Your task to perform on an android device: open app "Fetch Rewards" Image 0: 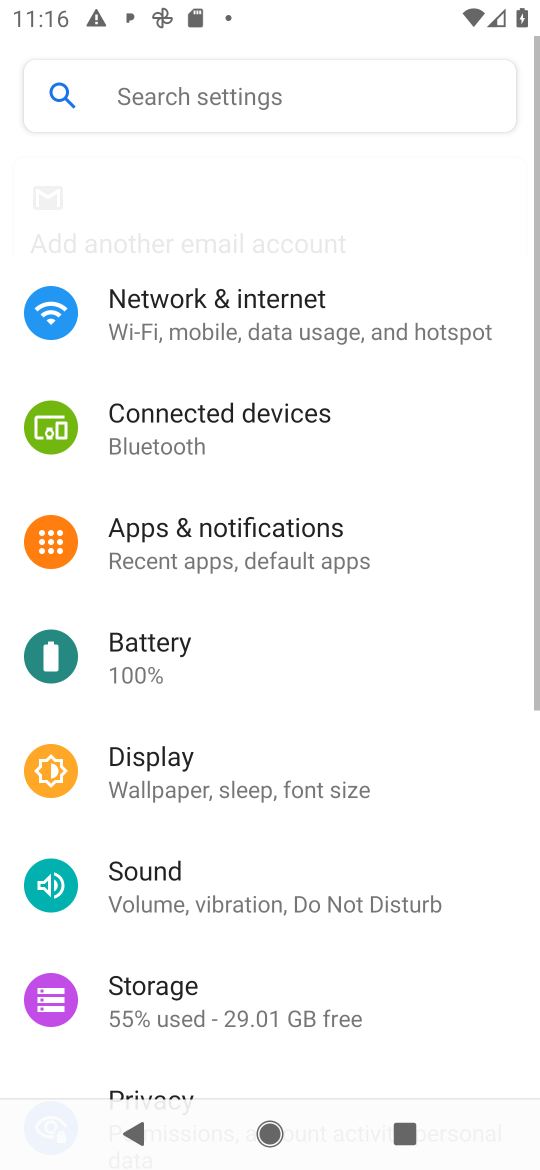
Step 0: press home button
Your task to perform on an android device: open app "Fetch Rewards" Image 1: 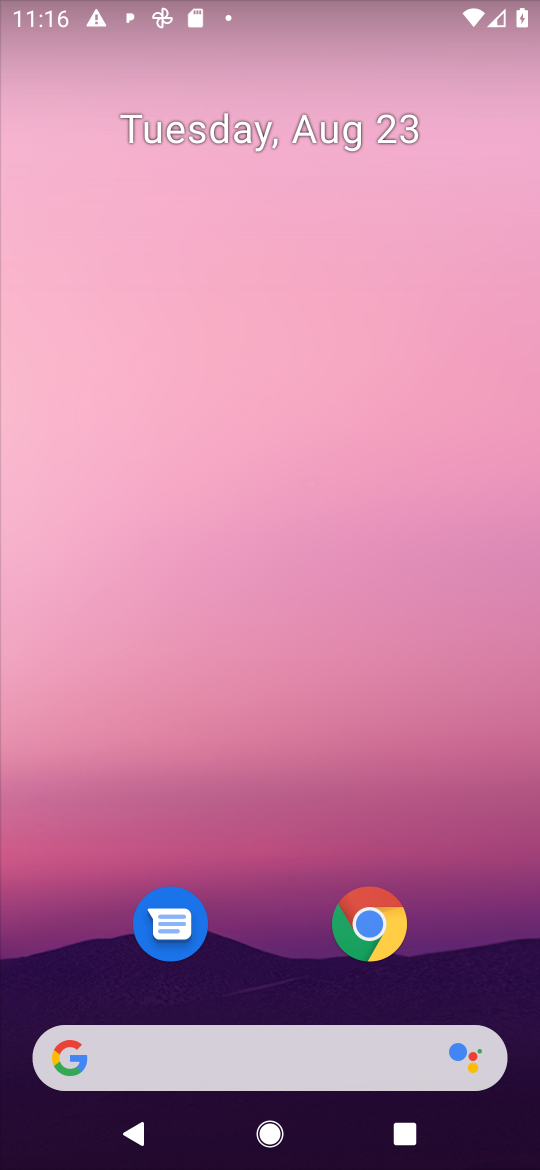
Step 1: drag from (484, 987) to (499, 145)
Your task to perform on an android device: open app "Fetch Rewards" Image 2: 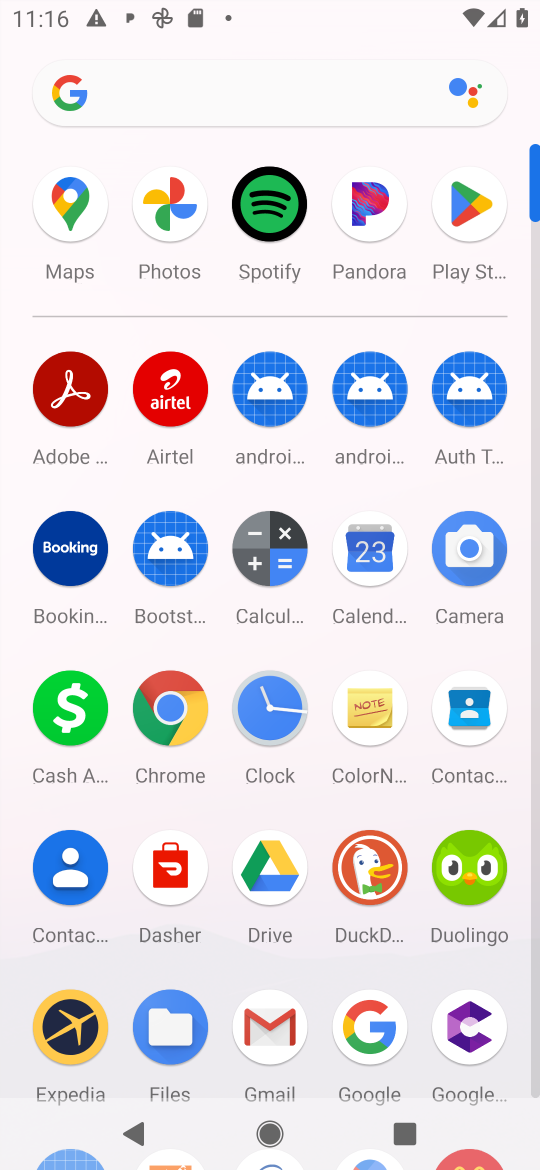
Step 2: click (468, 207)
Your task to perform on an android device: open app "Fetch Rewards" Image 3: 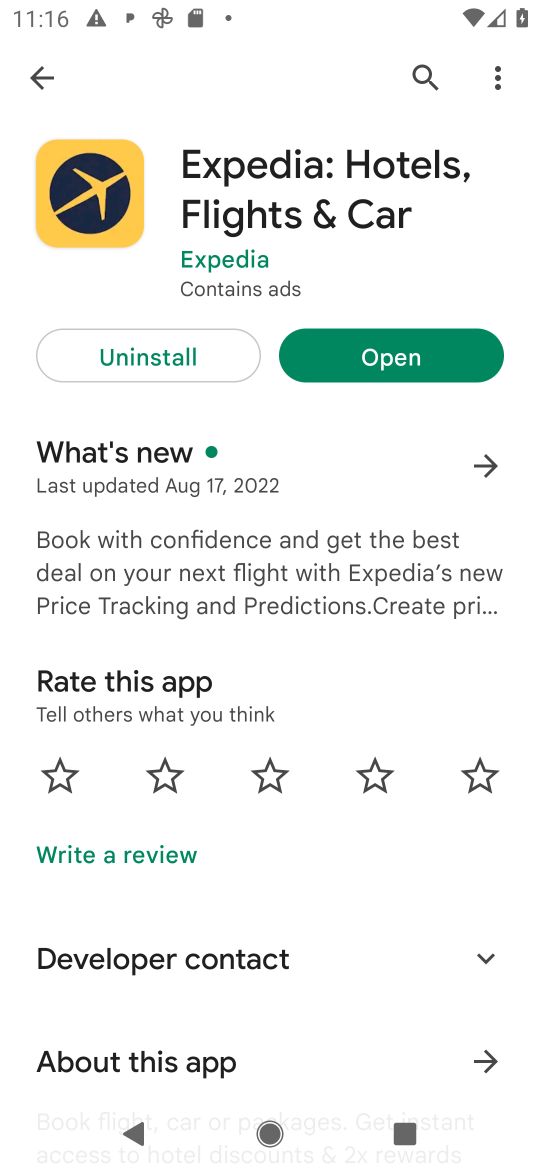
Step 3: press back button
Your task to perform on an android device: open app "Fetch Rewards" Image 4: 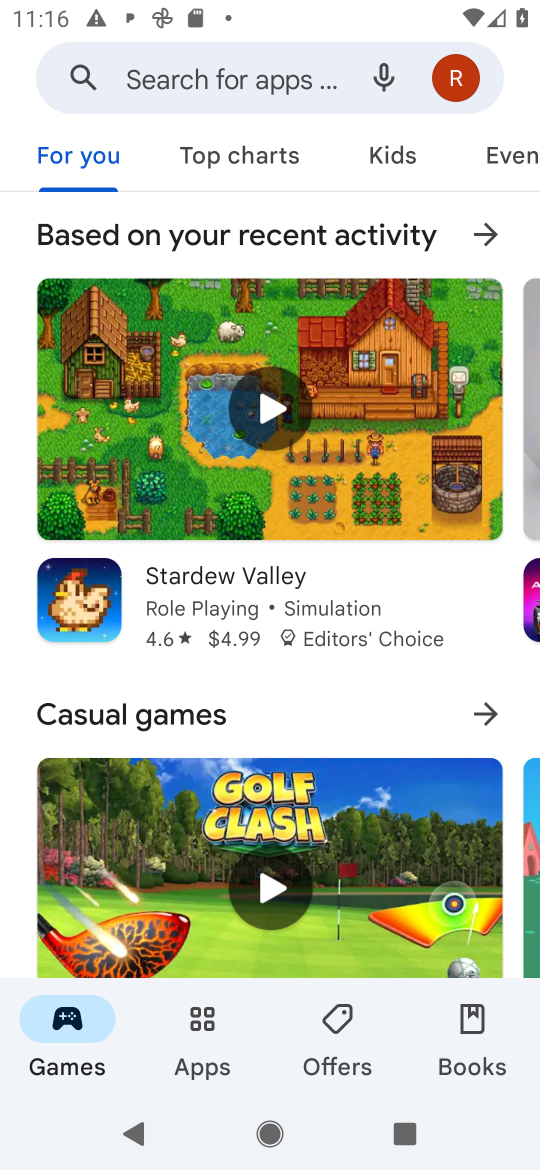
Step 4: click (235, 74)
Your task to perform on an android device: open app "Fetch Rewards" Image 5: 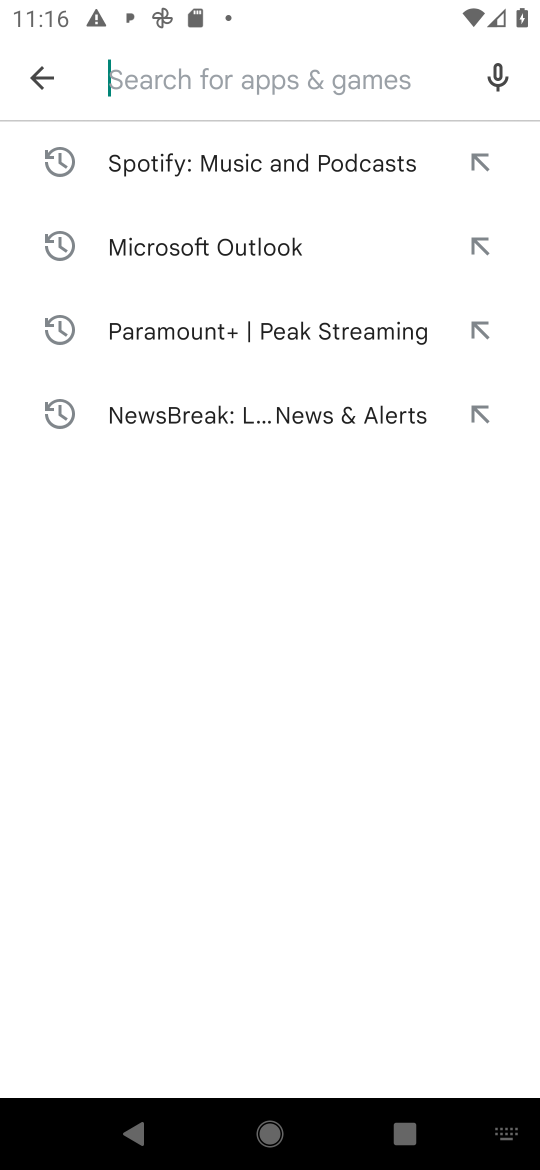
Step 5: press enter
Your task to perform on an android device: open app "Fetch Rewards" Image 6: 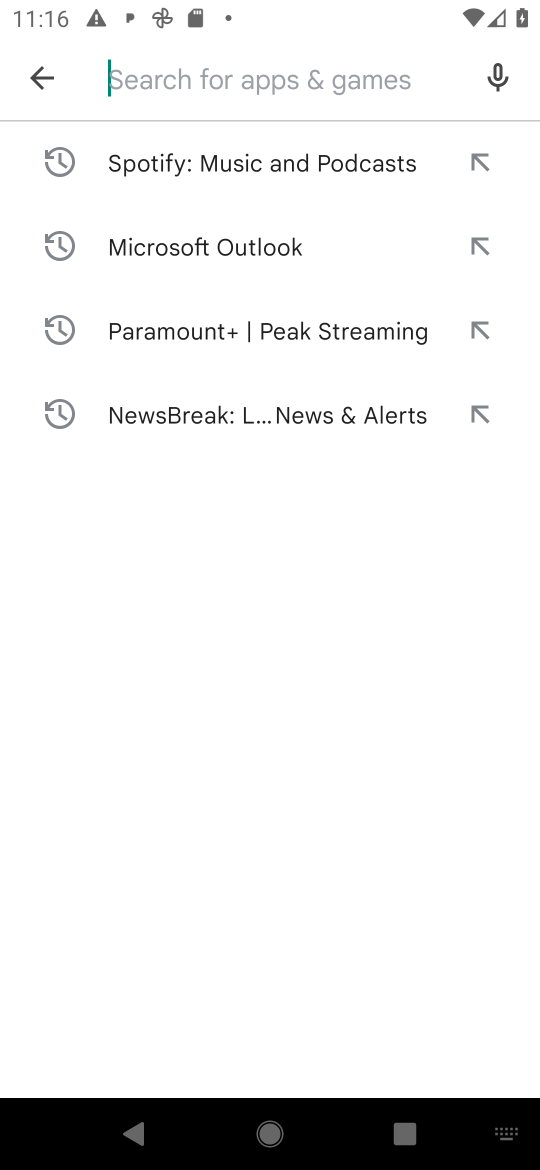
Step 6: type "Fetch Rewards"
Your task to perform on an android device: open app "Fetch Rewards" Image 7: 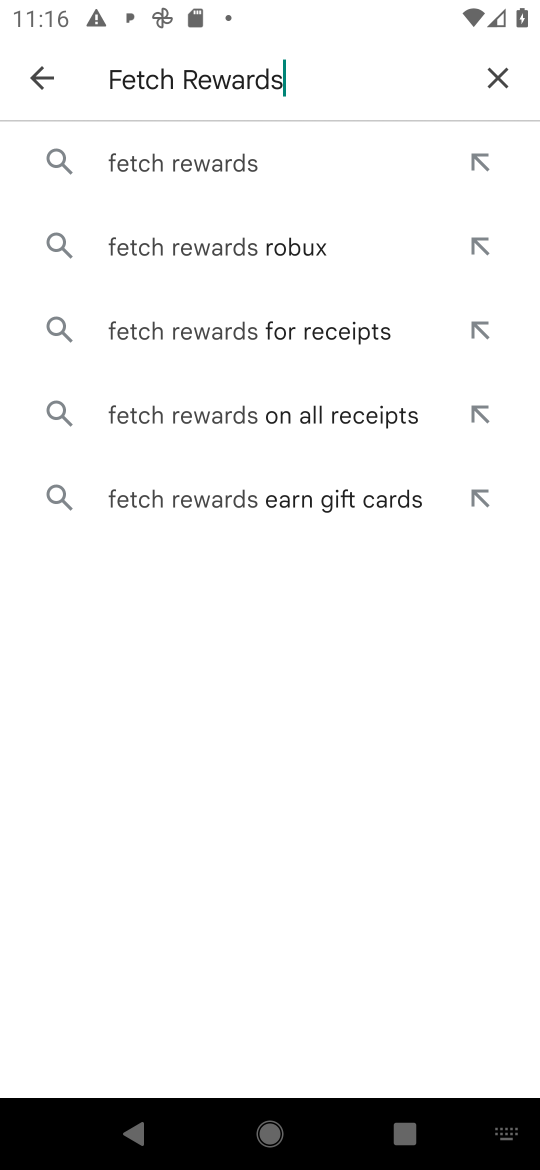
Step 7: click (245, 154)
Your task to perform on an android device: open app "Fetch Rewards" Image 8: 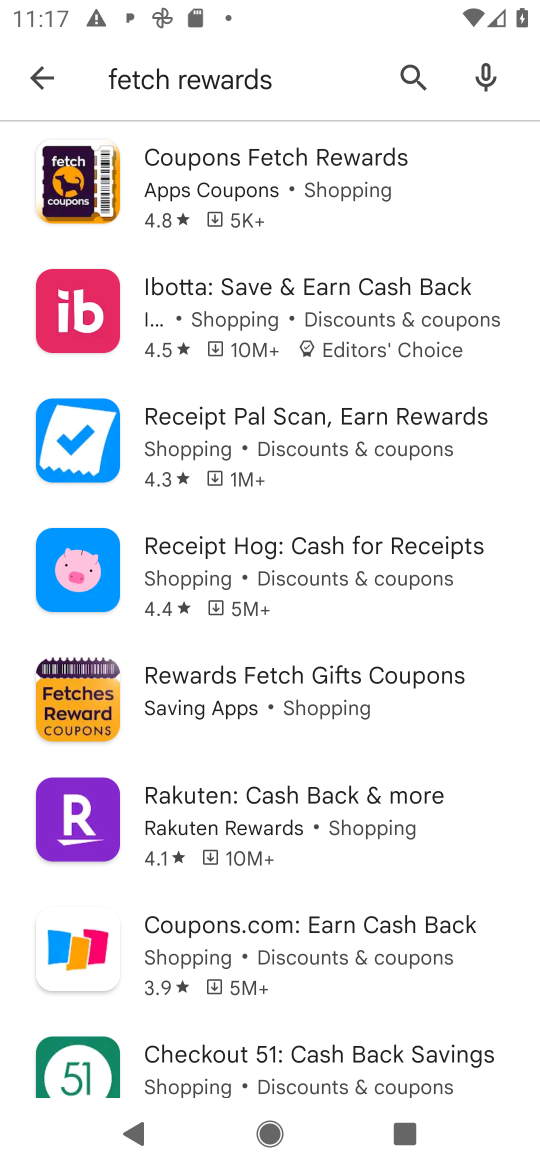
Step 8: task complete